Your task to perform on an android device: Check the weather Image 0: 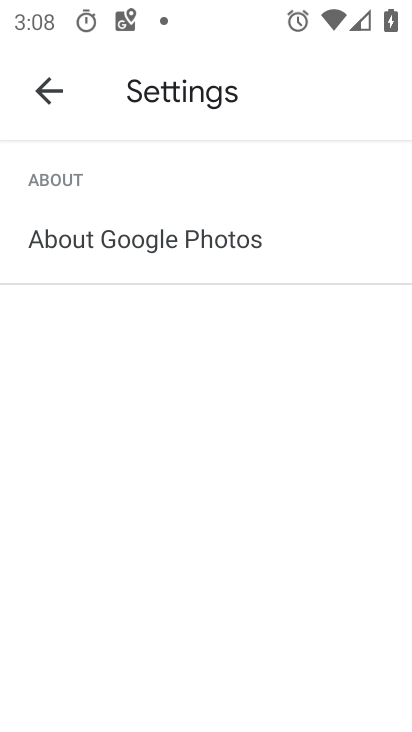
Step 0: press home button
Your task to perform on an android device: Check the weather Image 1: 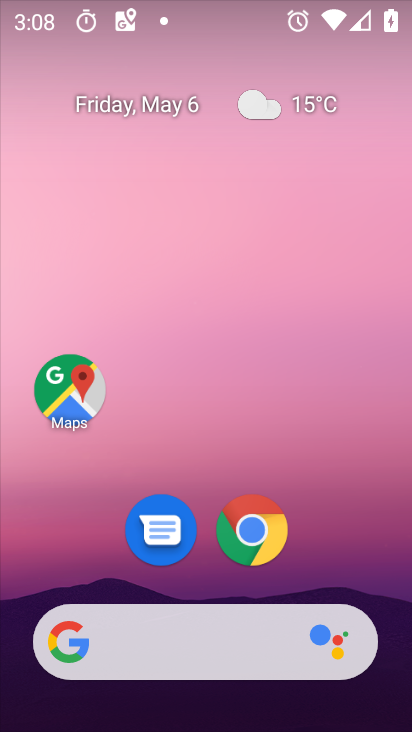
Step 1: drag from (355, 581) to (358, 112)
Your task to perform on an android device: Check the weather Image 2: 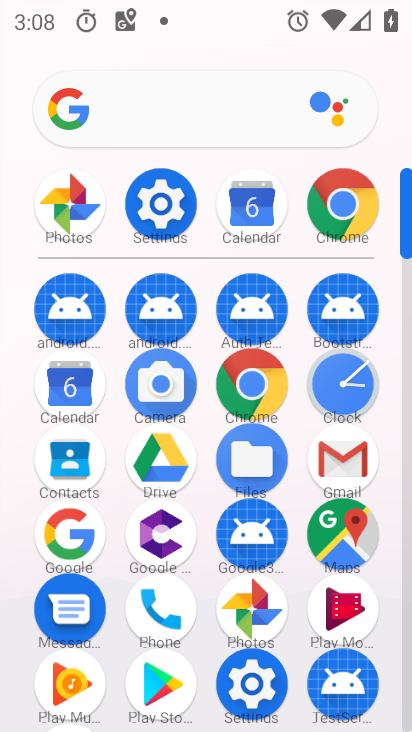
Step 2: press home button
Your task to perform on an android device: Check the weather Image 3: 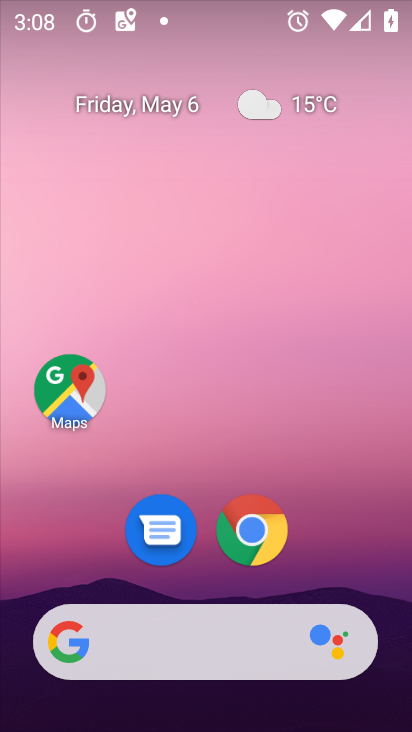
Step 3: click (295, 107)
Your task to perform on an android device: Check the weather Image 4: 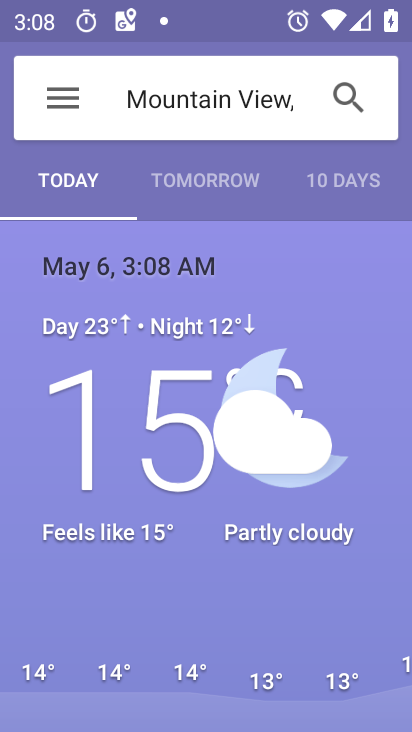
Step 4: task complete